Your task to perform on an android device: change alarm snooze length Image 0: 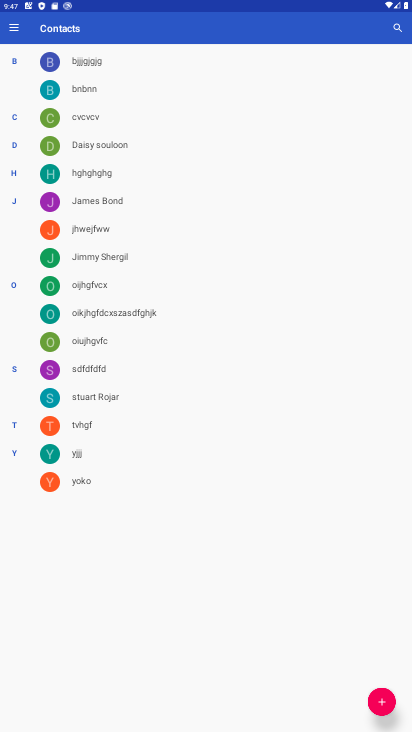
Step 0: press home button
Your task to perform on an android device: change alarm snooze length Image 1: 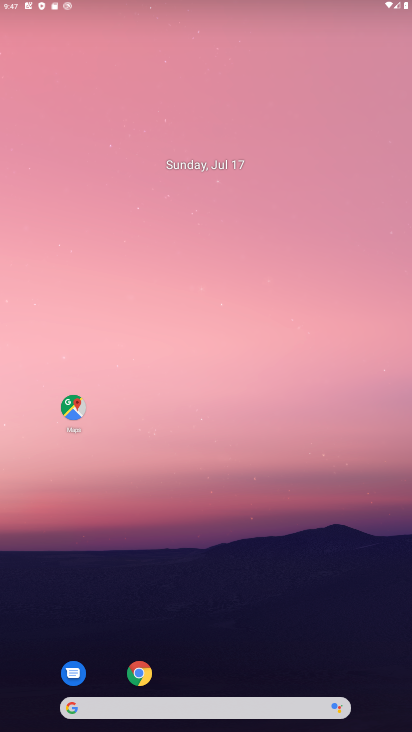
Step 1: drag from (255, 681) to (264, 38)
Your task to perform on an android device: change alarm snooze length Image 2: 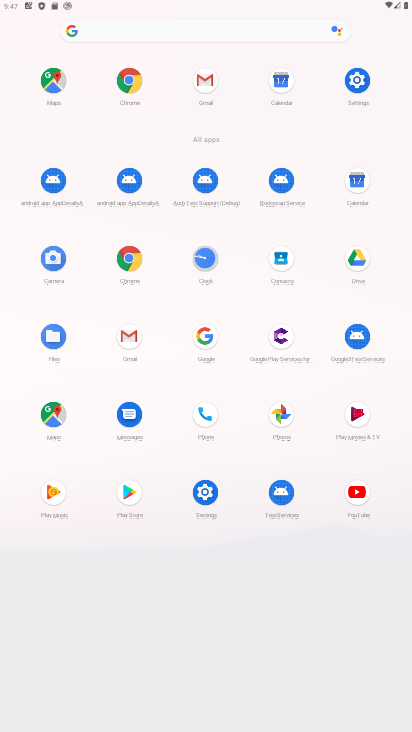
Step 2: click (203, 257)
Your task to perform on an android device: change alarm snooze length Image 3: 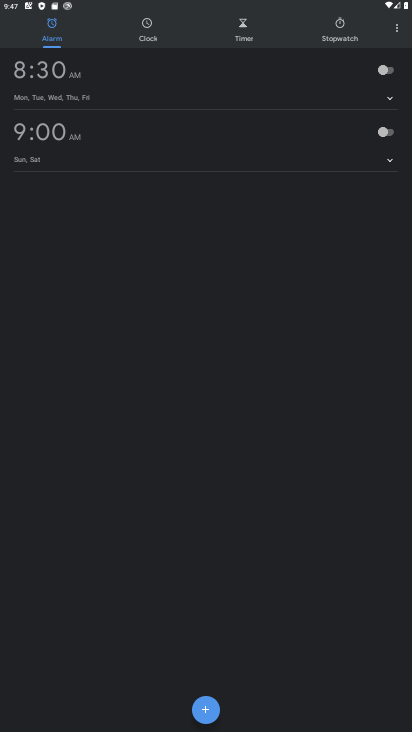
Step 3: click (396, 30)
Your task to perform on an android device: change alarm snooze length Image 4: 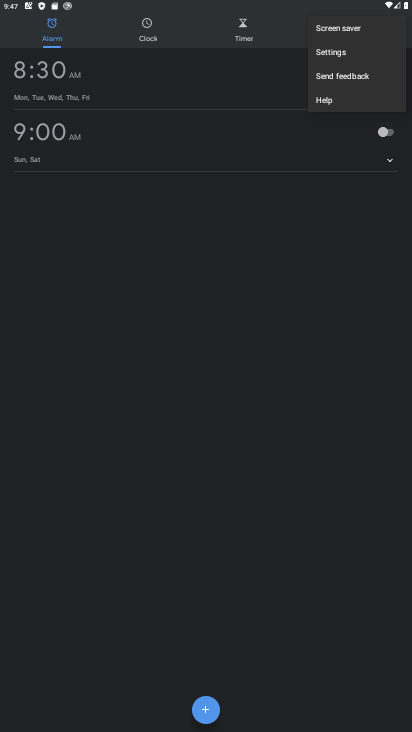
Step 4: click (327, 57)
Your task to perform on an android device: change alarm snooze length Image 5: 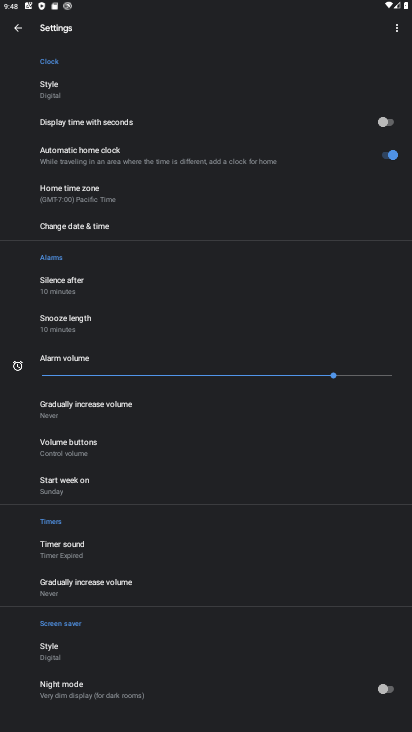
Step 5: click (118, 328)
Your task to perform on an android device: change alarm snooze length Image 6: 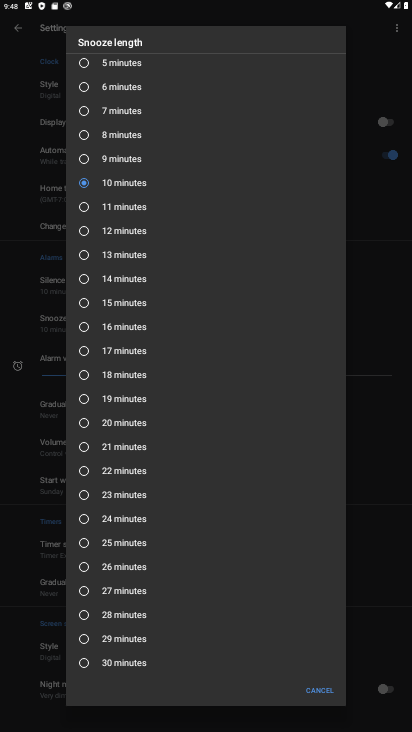
Step 6: click (84, 305)
Your task to perform on an android device: change alarm snooze length Image 7: 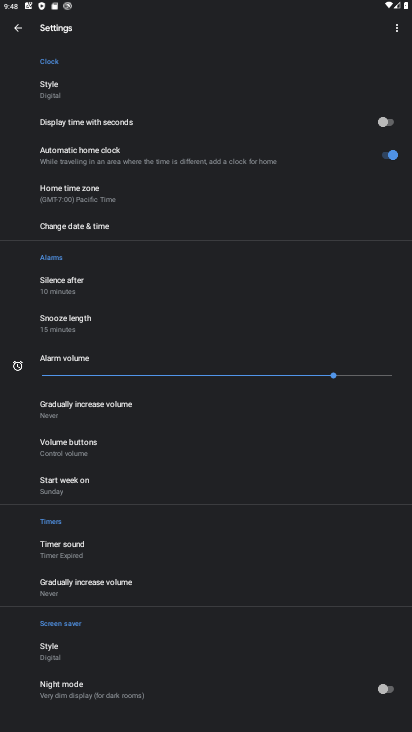
Step 7: task complete